Your task to perform on an android device: Open settings on Google Maps Image 0: 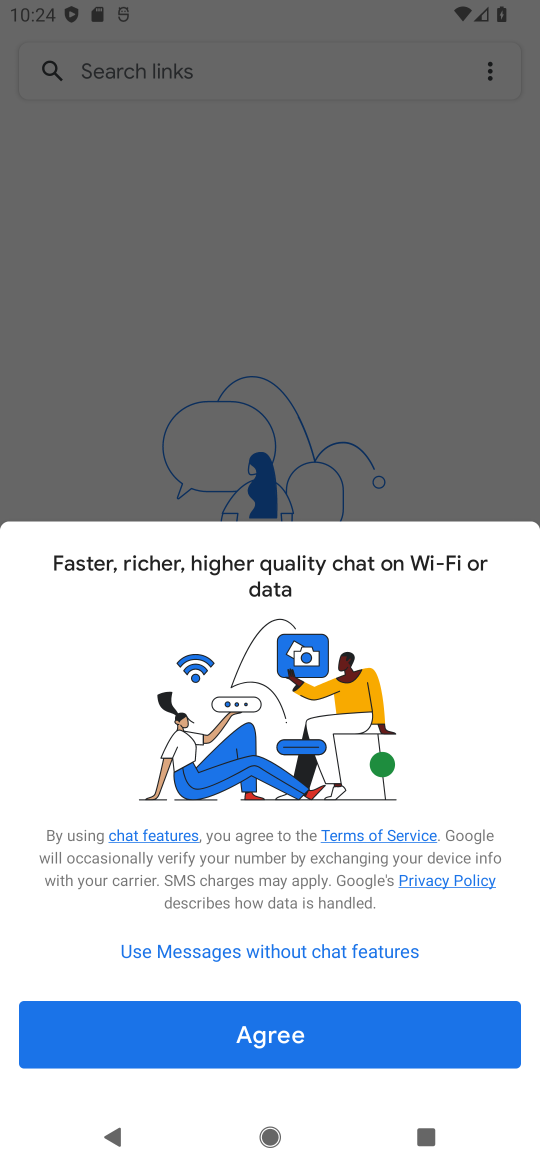
Step 0: press home button
Your task to perform on an android device: Open settings on Google Maps Image 1: 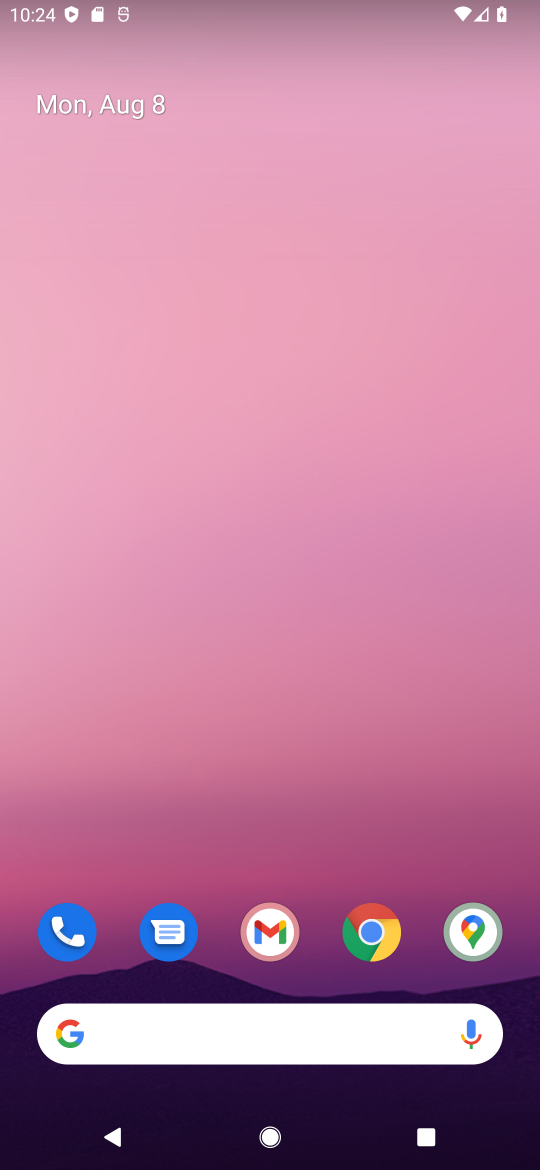
Step 1: click (454, 913)
Your task to perform on an android device: Open settings on Google Maps Image 2: 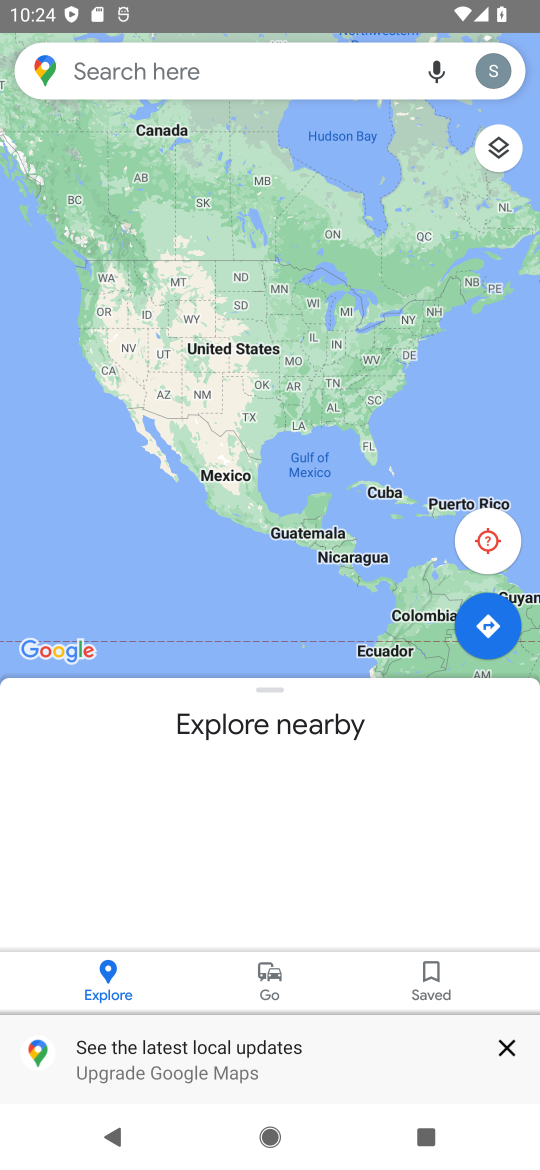
Step 2: click (496, 78)
Your task to perform on an android device: Open settings on Google Maps Image 3: 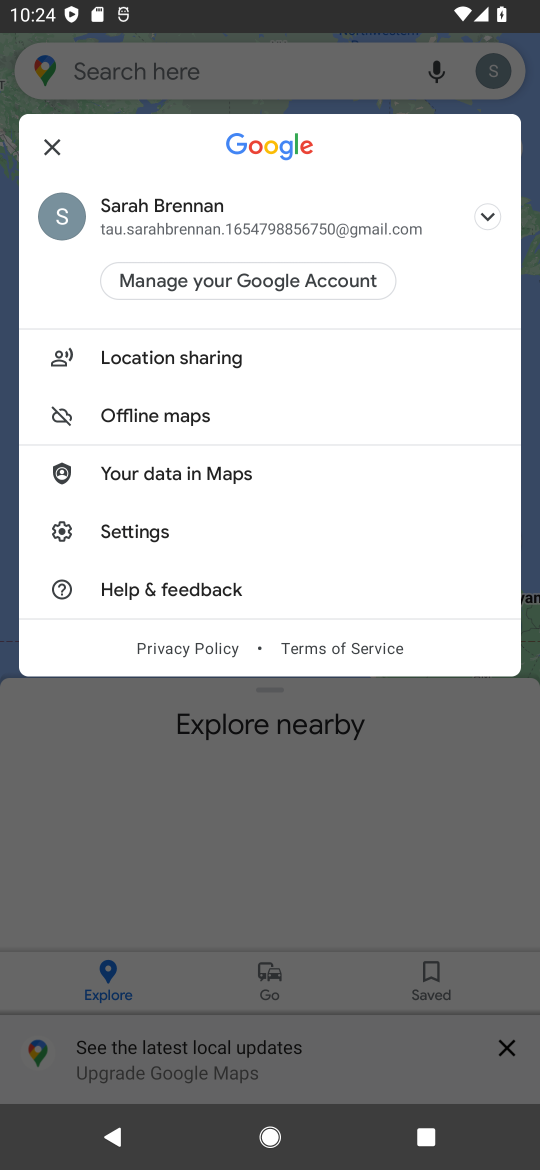
Step 3: click (161, 542)
Your task to perform on an android device: Open settings on Google Maps Image 4: 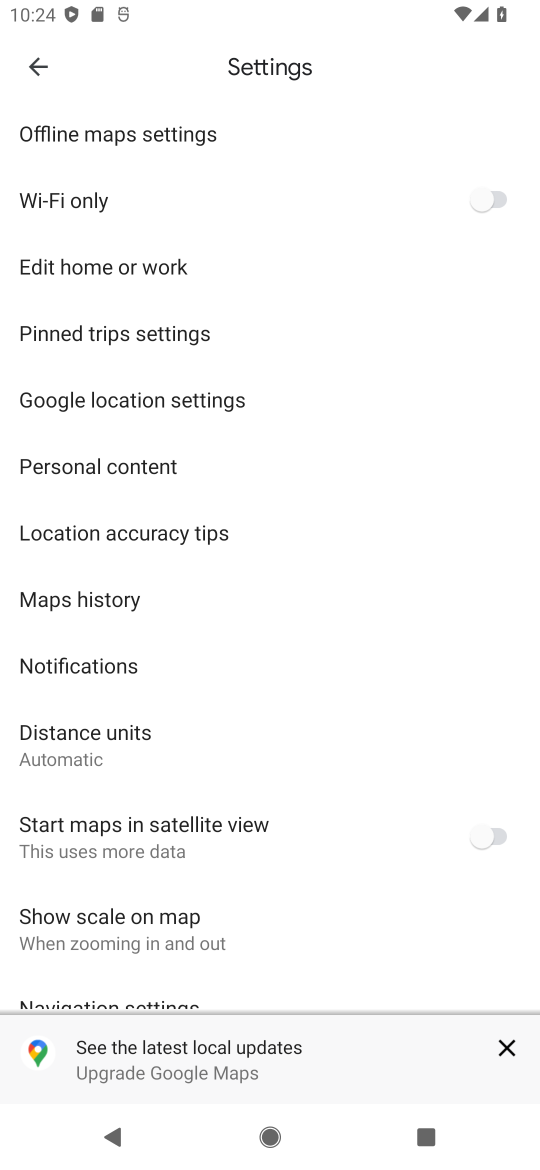
Step 4: task complete